Your task to perform on an android device: Open the phone app and click the voicemail tab. Image 0: 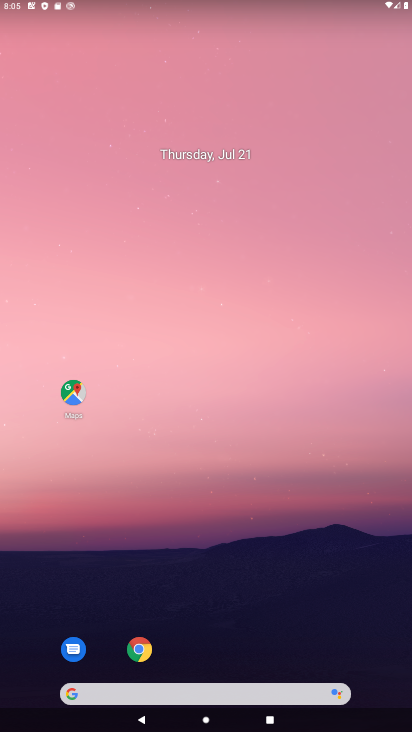
Step 0: drag from (202, 540) to (369, 328)
Your task to perform on an android device: Open the phone app and click the voicemail tab. Image 1: 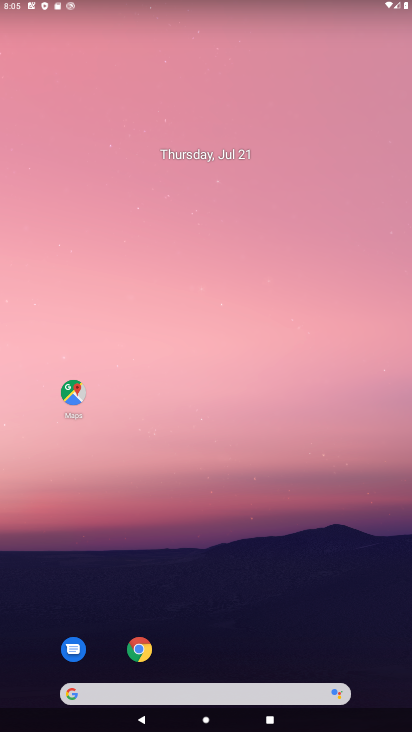
Step 1: drag from (193, 623) to (23, 314)
Your task to perform on an android device: Open the phone app and click the voicemail tab. Image 2: 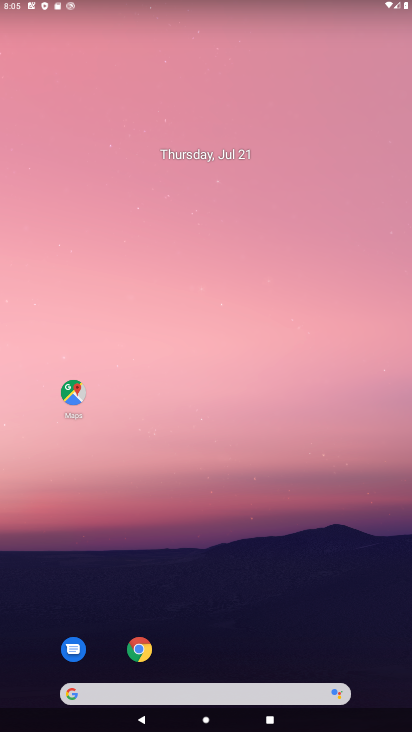
Step 2: click (209, 502)
Your task to perform on an android device: Open the phone app and click the voicemail tab. Image 3: 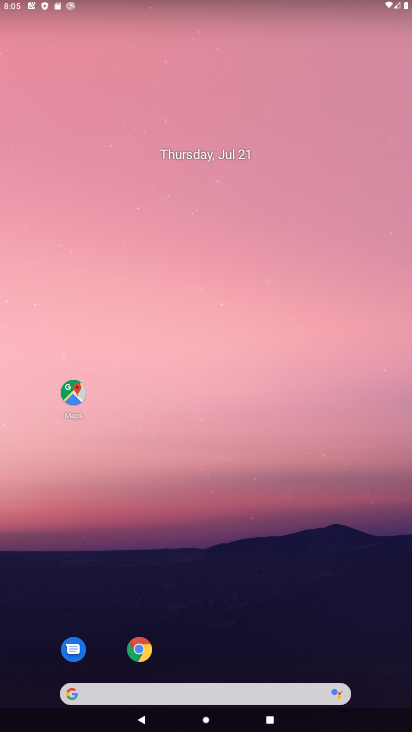
Step 3: drag from (207, 464) to (203, 78)
Your task to perform on an android device: Open the phone app and click the voicemail tab. Image 4: 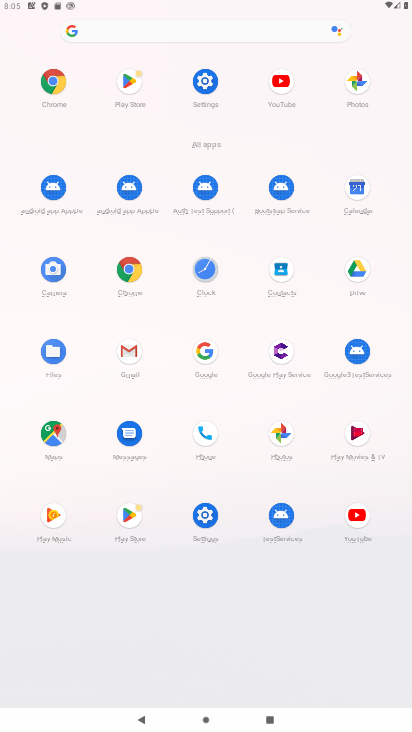
Step 4: click (201, 452)
Your task to perform on an android device: Open the phone app and click the voicemail tab. Image 5: 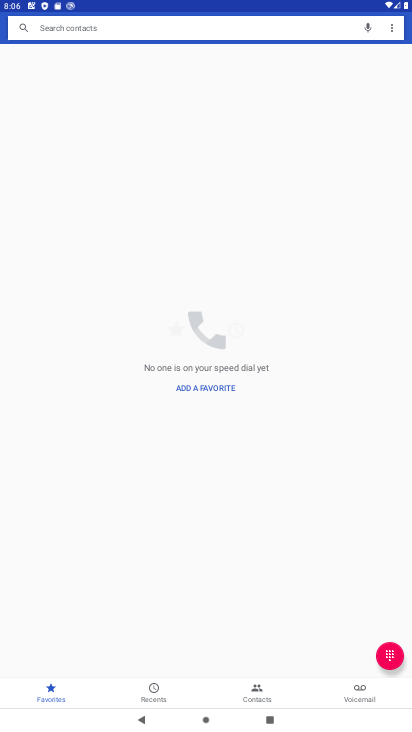
Step 5: click (364, 698)
Your task to perform on an android device: Open the phone app and click the voicemail tab. Image 6: 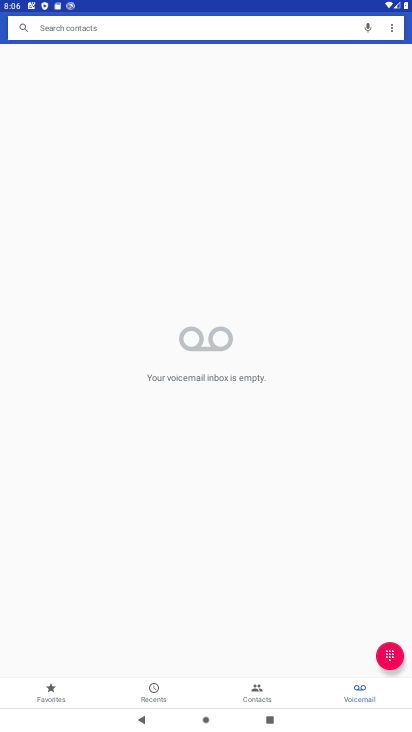
Step 6: task complete